Your task to perform on an android device: delete location history Image 0: 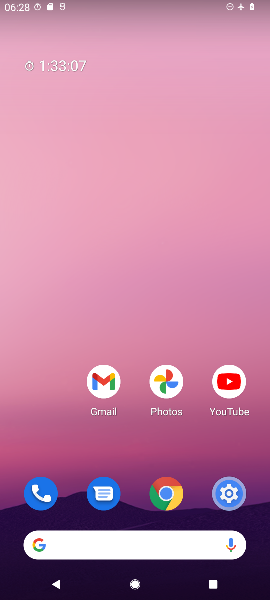
Step 0: press home button
Your task to perform on an android device: delete location history Image 1: 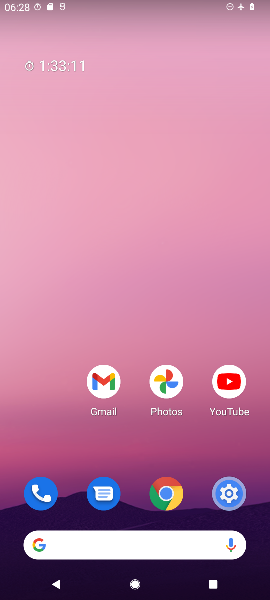
Step 1: drag from (40, 425) to (51, 116)
Your task to perform on an android device: delete location history Image 2: 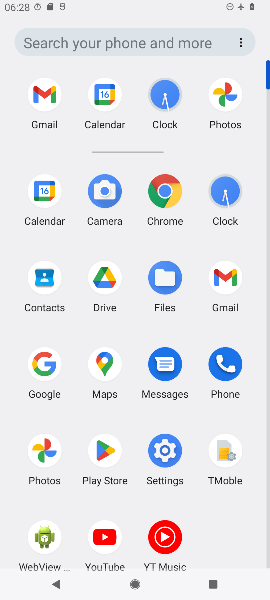
Step 2: click (164, 452)
Your task to perform on an android device: delete location history Image 3: 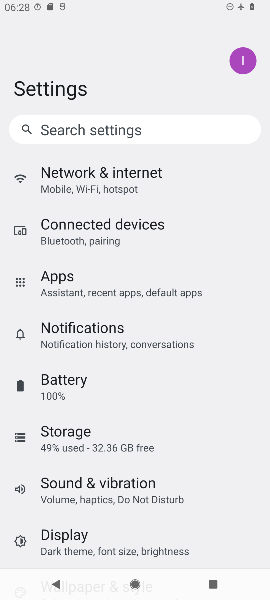
Step 3: drag from (232, 506) to (224, 365)
Your task to perform on an android device: delete location history Image 4: 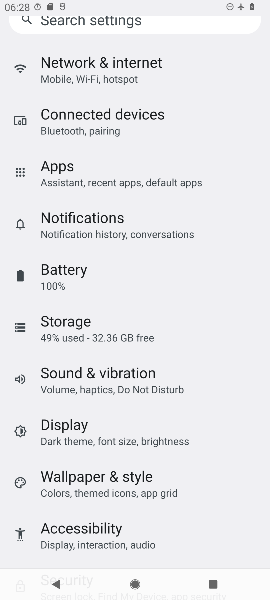
Step 4: drag from (216, 486) to (216, 241)
Your task to perform on an android device: delete location history Image 5: 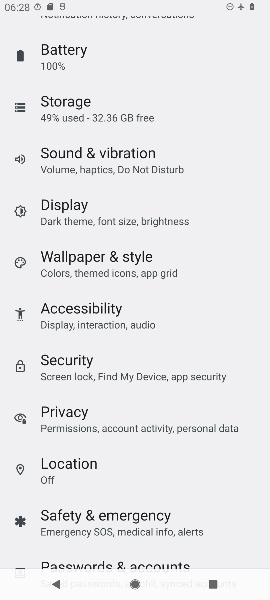
Step 5: drag from (220, 491) to (214, 316)
Your task to perform on an android device: delete location history Image 6: 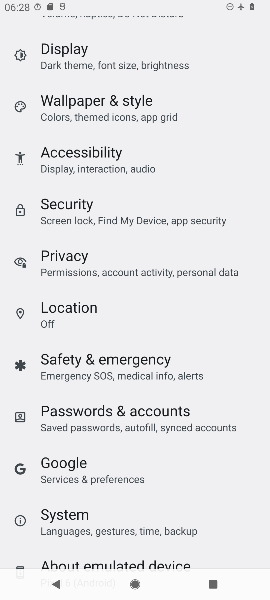
Step 6: drag from (226, 497) to (223, 286)
Your task to perform on an android device: delete location history Image 7: 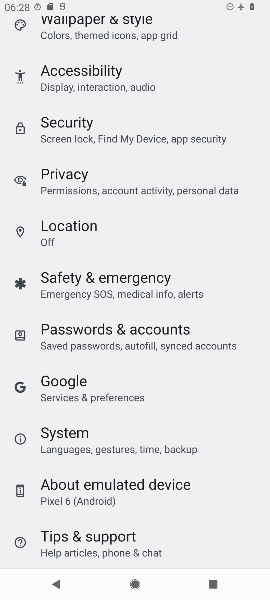
Step 7: drag from (238, 492) to (237, 328)
Your task to perform on an android device: delete location history Image 8: 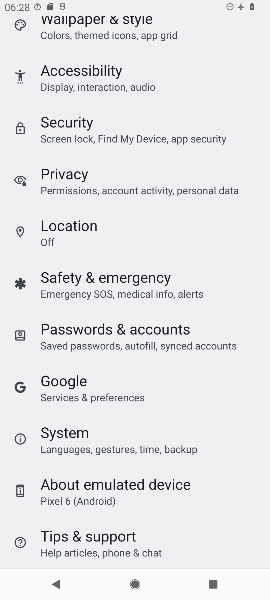
Step 8: press home button
Your task to perform on an android device: delete location history Image 9: 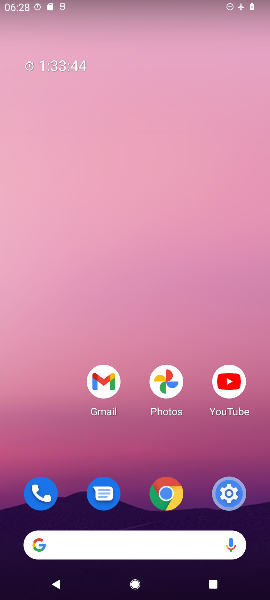
Step 9: drag from (48, 452) to (59, 139)
Your task to perform on an android device: delete location history Image 10: 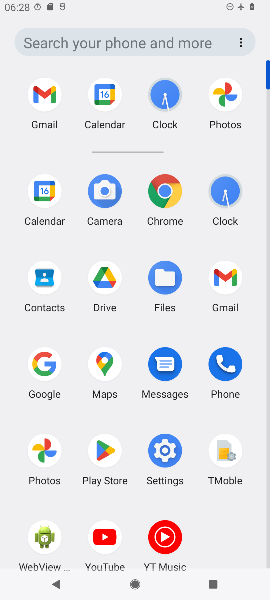
Step 10: click (104, 362)
Your task to perform on an android device: delete location history Image 11: 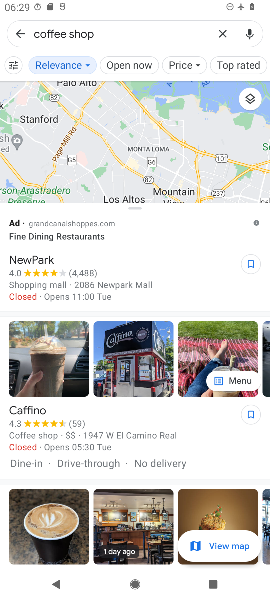
Step 11: press back button
Your task to perform on an android device: delete location history Image 12: 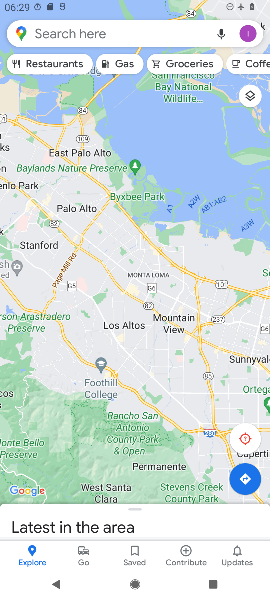
Step 12: click (244, 31)
Your task to perform on an android device: delete location history Image 13: 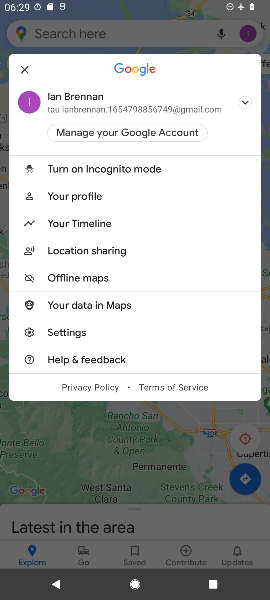
Step 13: click (105, 222)
Your task to perform on an android device: delete location history Image 14: 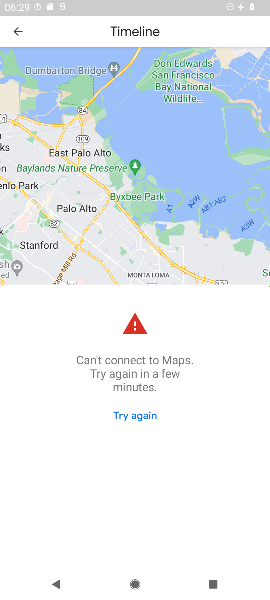
Step 14: task complete